Your task to perform on an android device: uninstall "Pluto TV - Live TV and Movies" Image 0: 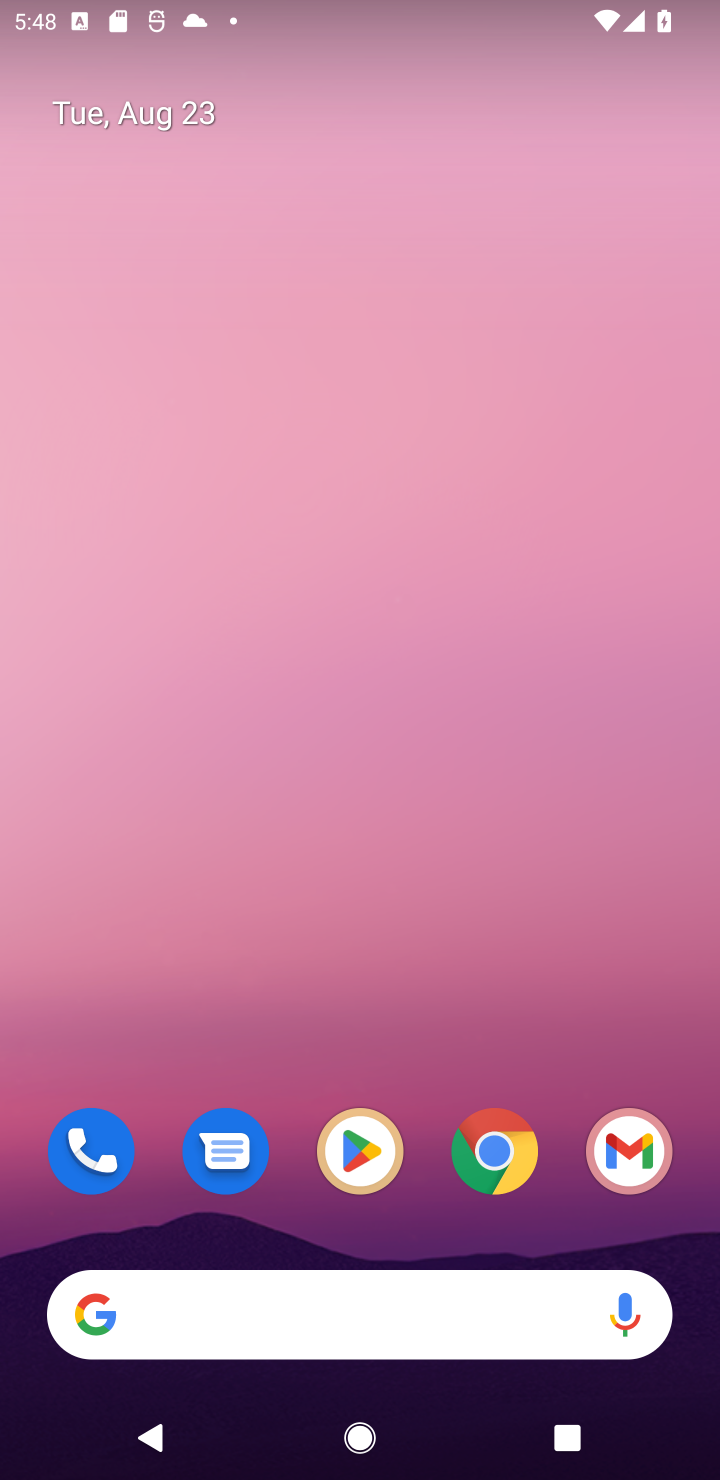
Step 0: click (365, 1139)
Your task to perform on an android device: uninstall "Pluto TV - Live TV and Movies" Image 1: 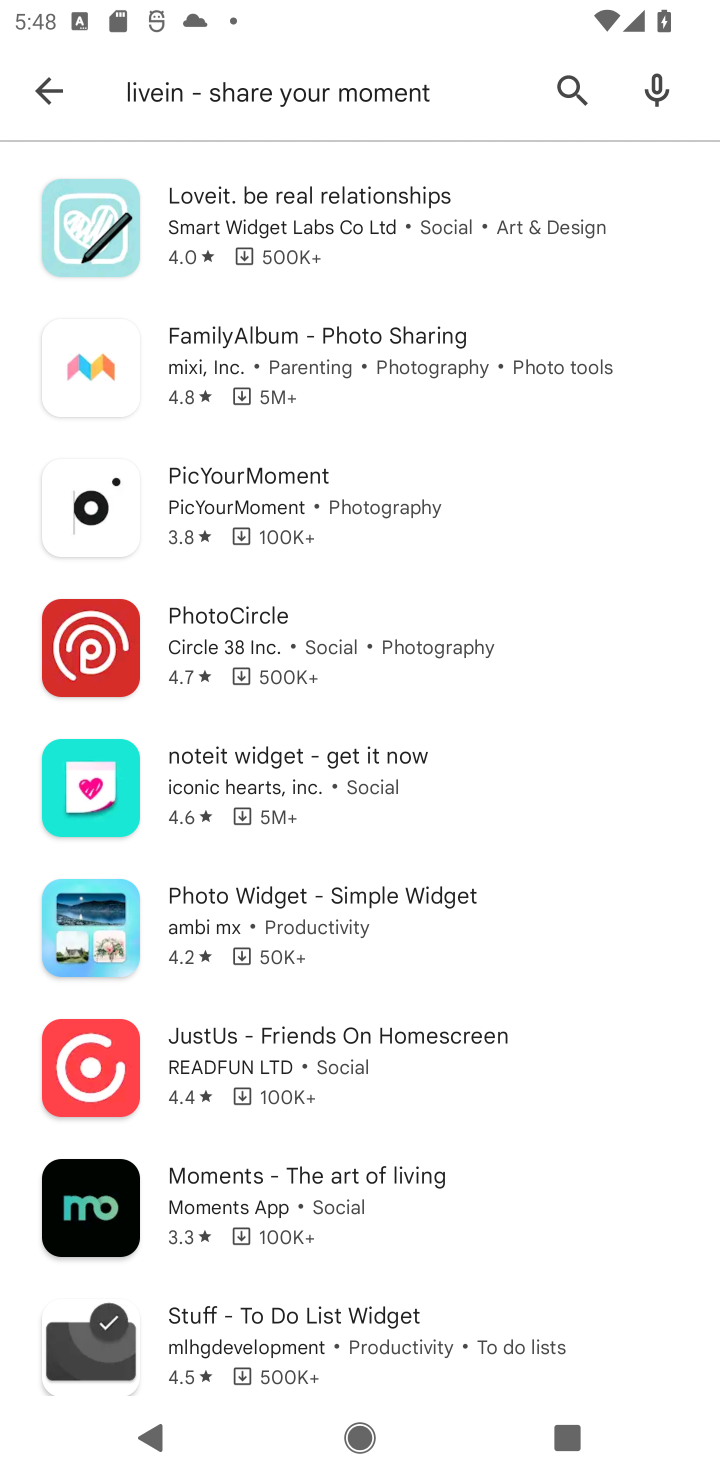
Step 1: click (558, 86)
Your task to perform on an android device: uninstall "Pluto TV - Live TV and Movies" Image 2: 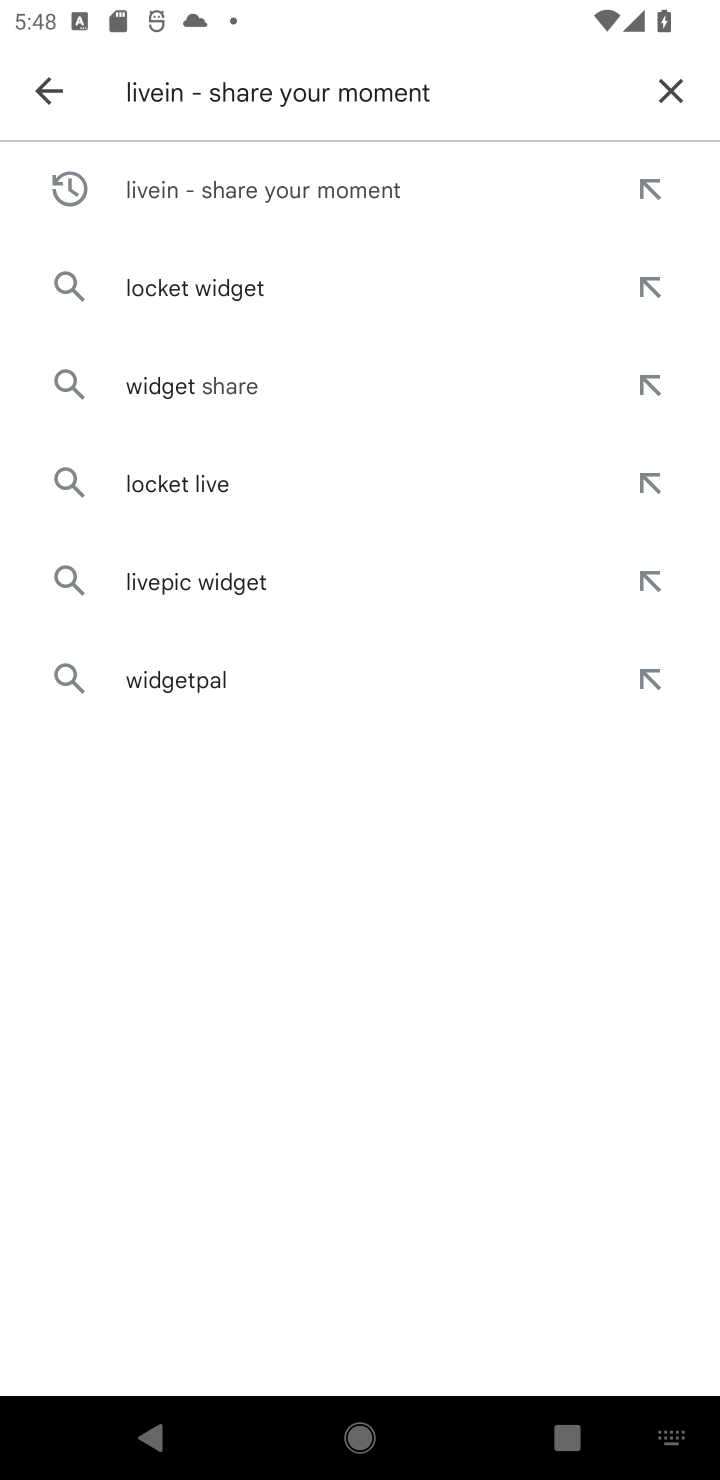
Step 2: click (667, 78)
Your task to perform on an android device: uninstall "Pluto TV - Live TV and Movies" Image 3: 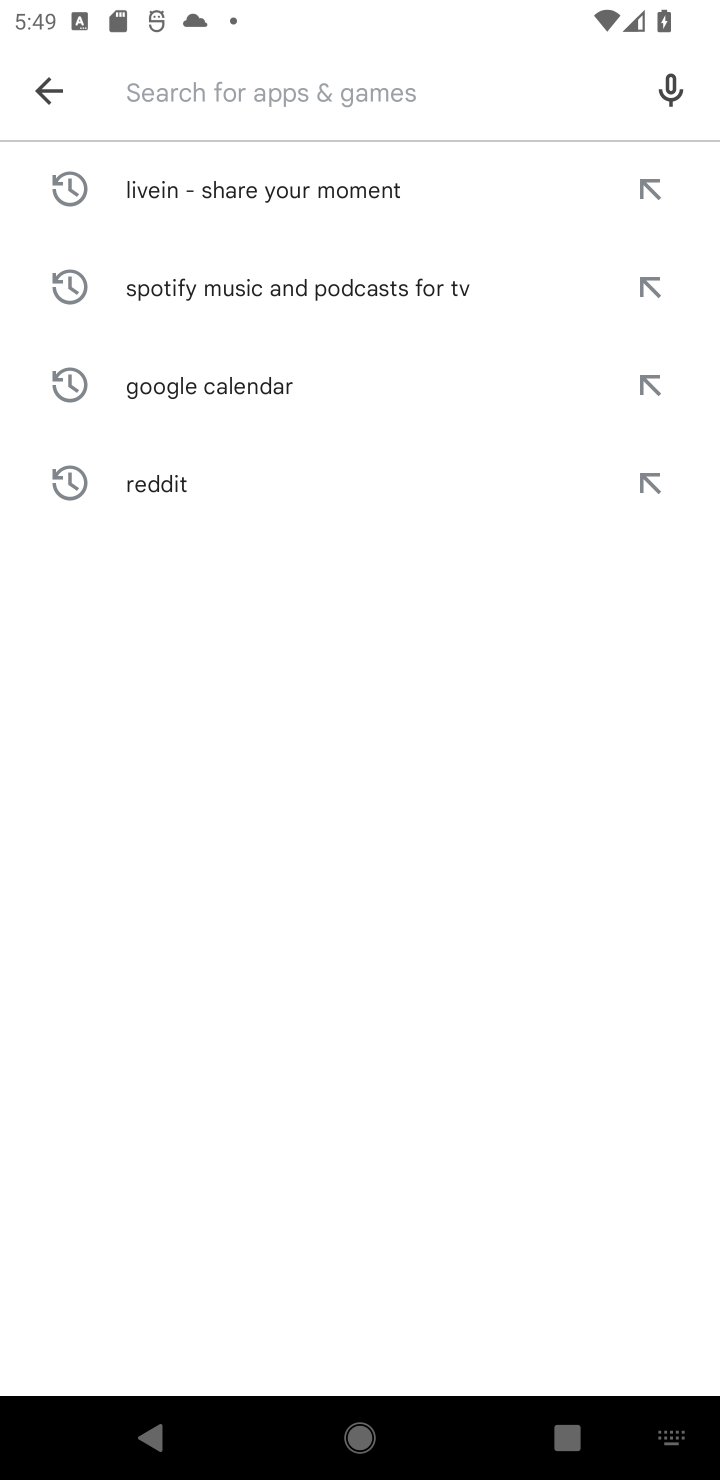
Step 3: type "Pluto TV - Live TV and Movies"
Your task to perform on an android device: uninstall "Pluto TV - Live TV and Movies" Image 4: 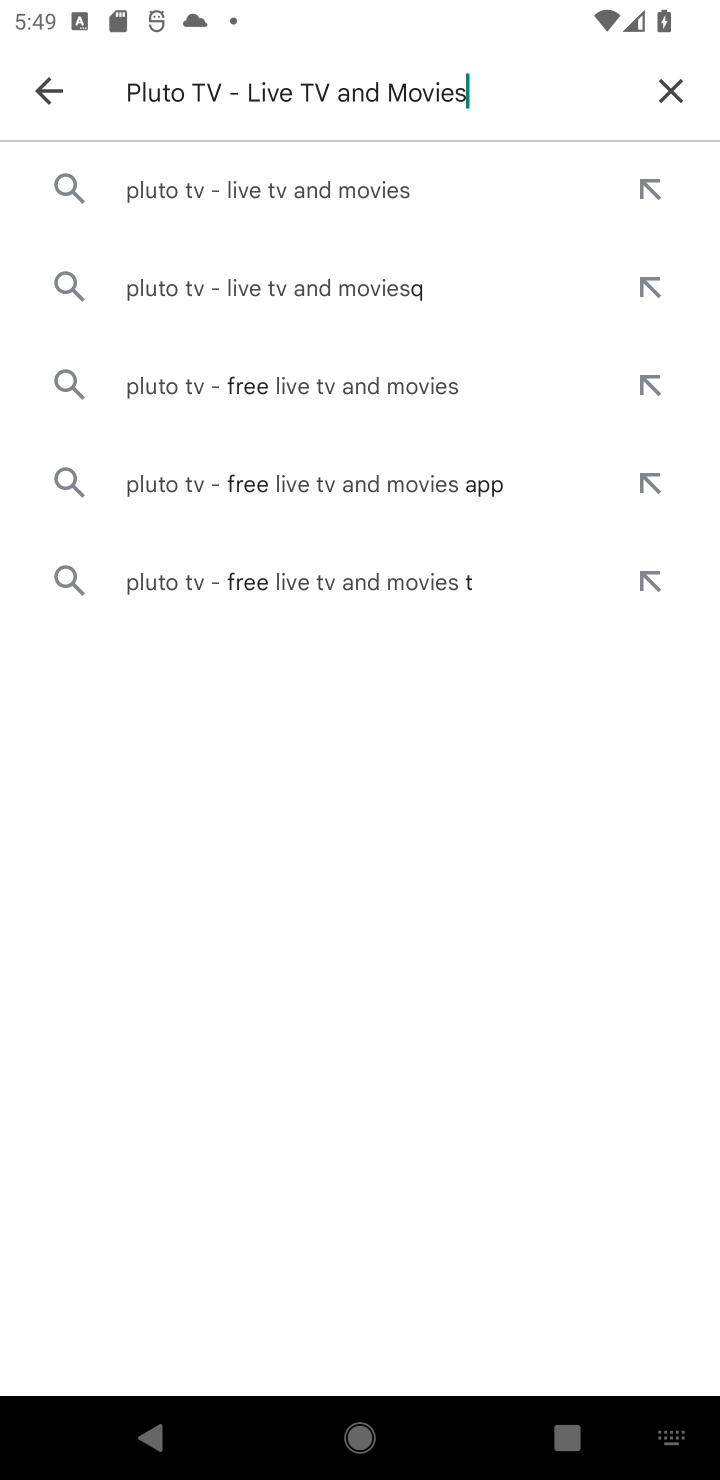
Step 4: click (278, 178)
Your task to perform on an android device: uninstall "Pluto TV - Live TV and Movies" Image 5: 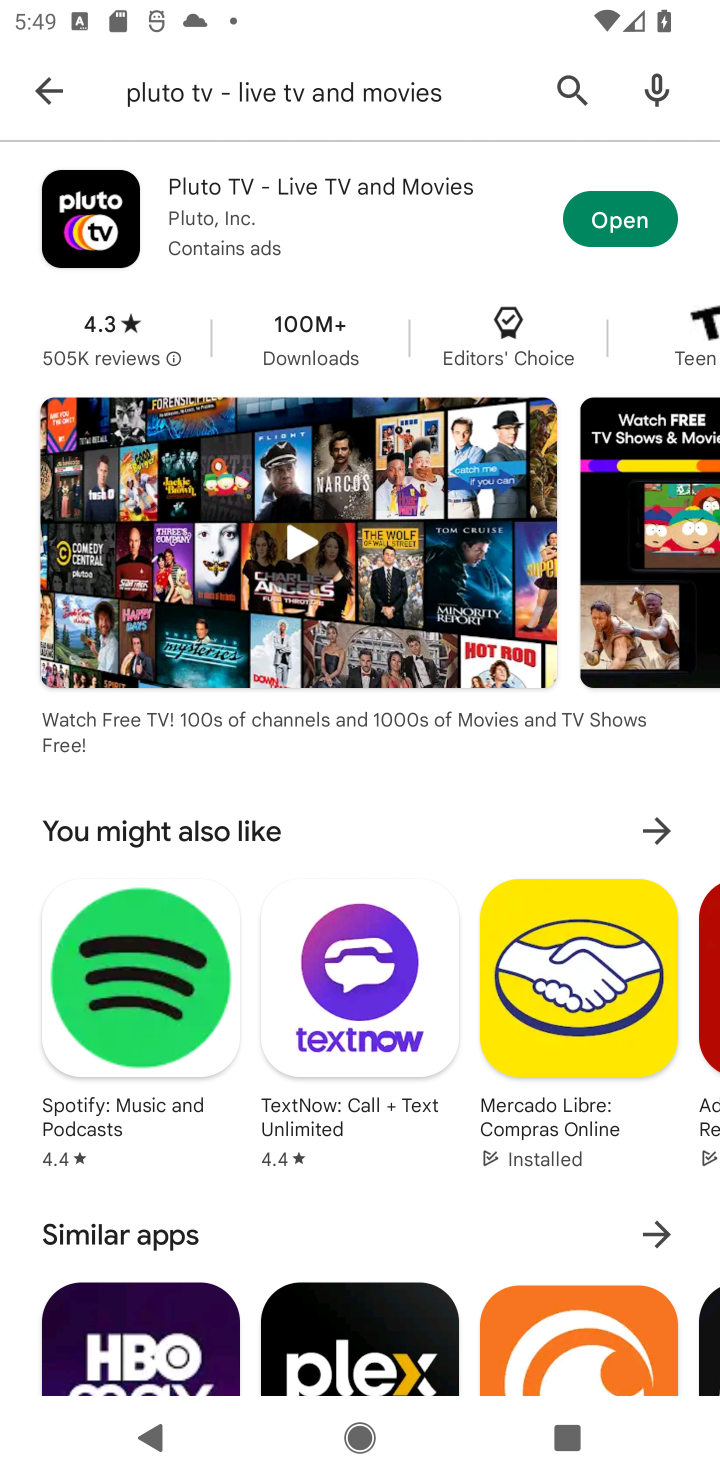
Step 5: click (278, 179)
Your task to perform on an android device: uninstall "Pluto TV - Live TV and Movies" Image 6: 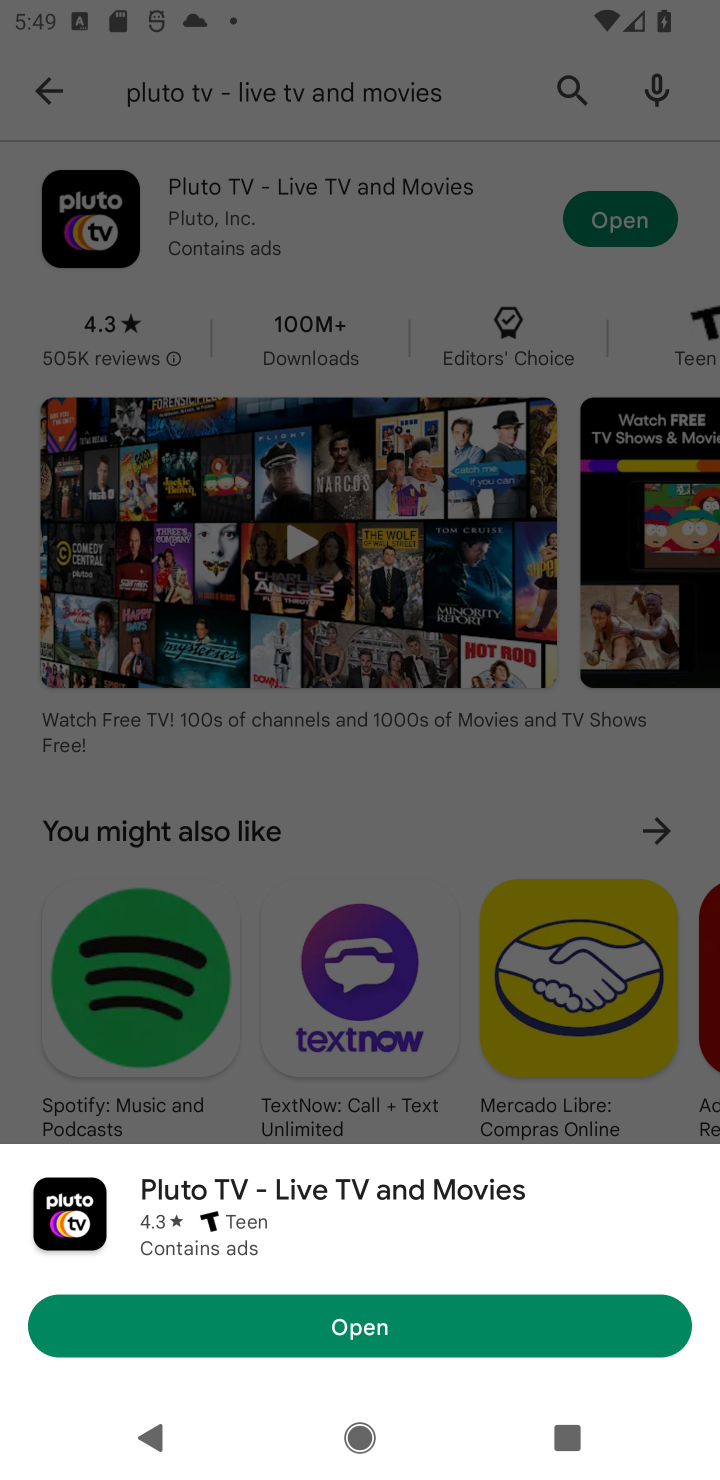
Step 6: click (124, 201)
Your task to perform on an android device: uninstall "Pluto TV - Live TV and Movies" Image 7: 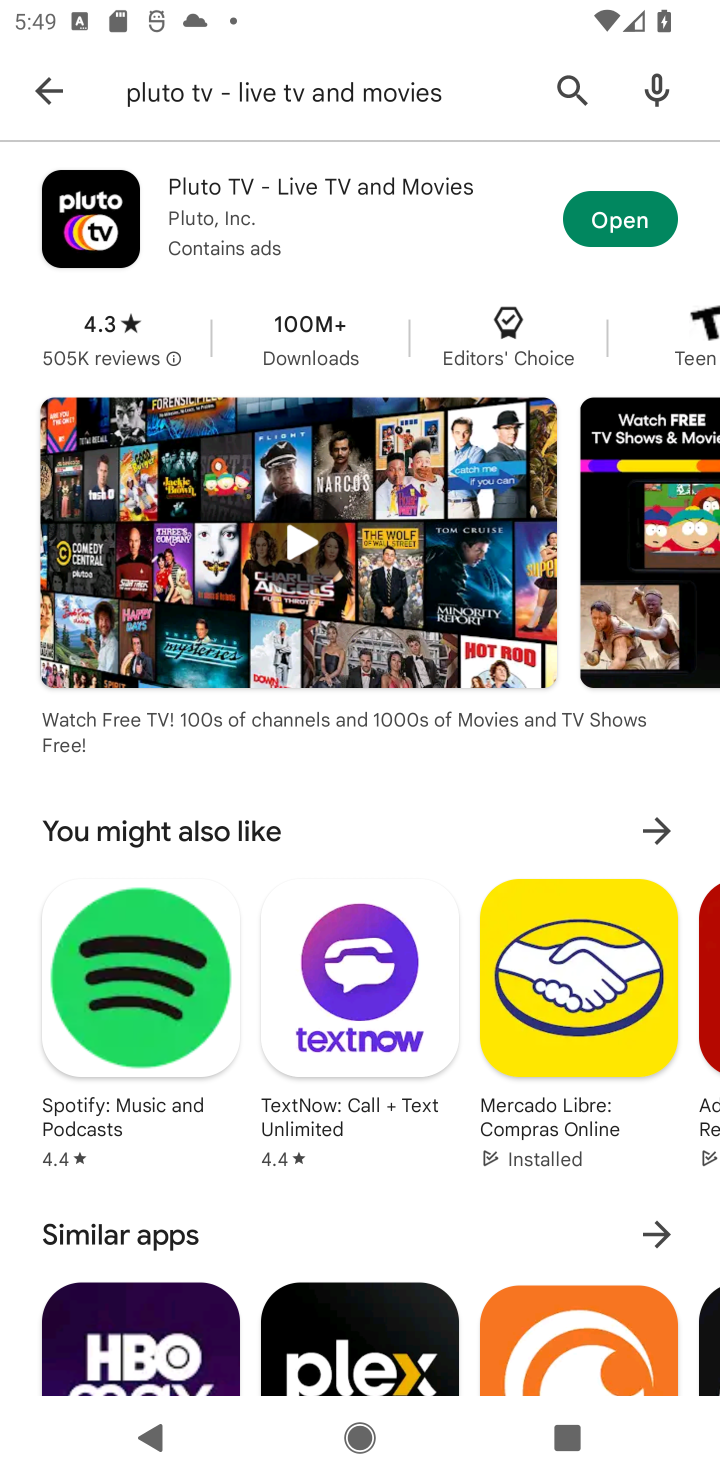
Step 7: click (182, 180)
Your task to perform on an android device: uninstall "Pluto TV - Live TV and Movies" Image 8: 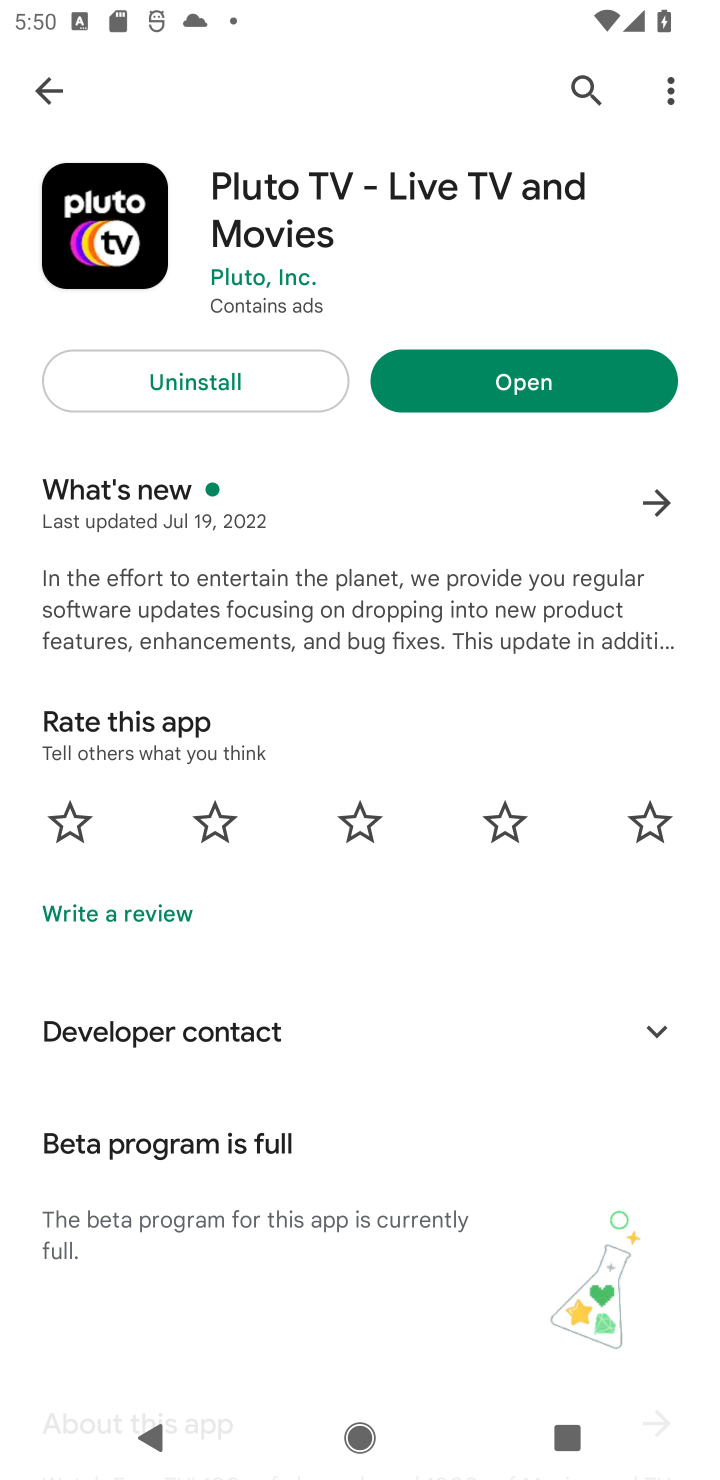
Step 8: click (231, 370)
Your task to perform on an android device: uninstall "Pluto TV - Live TV and Movies" Image 9: 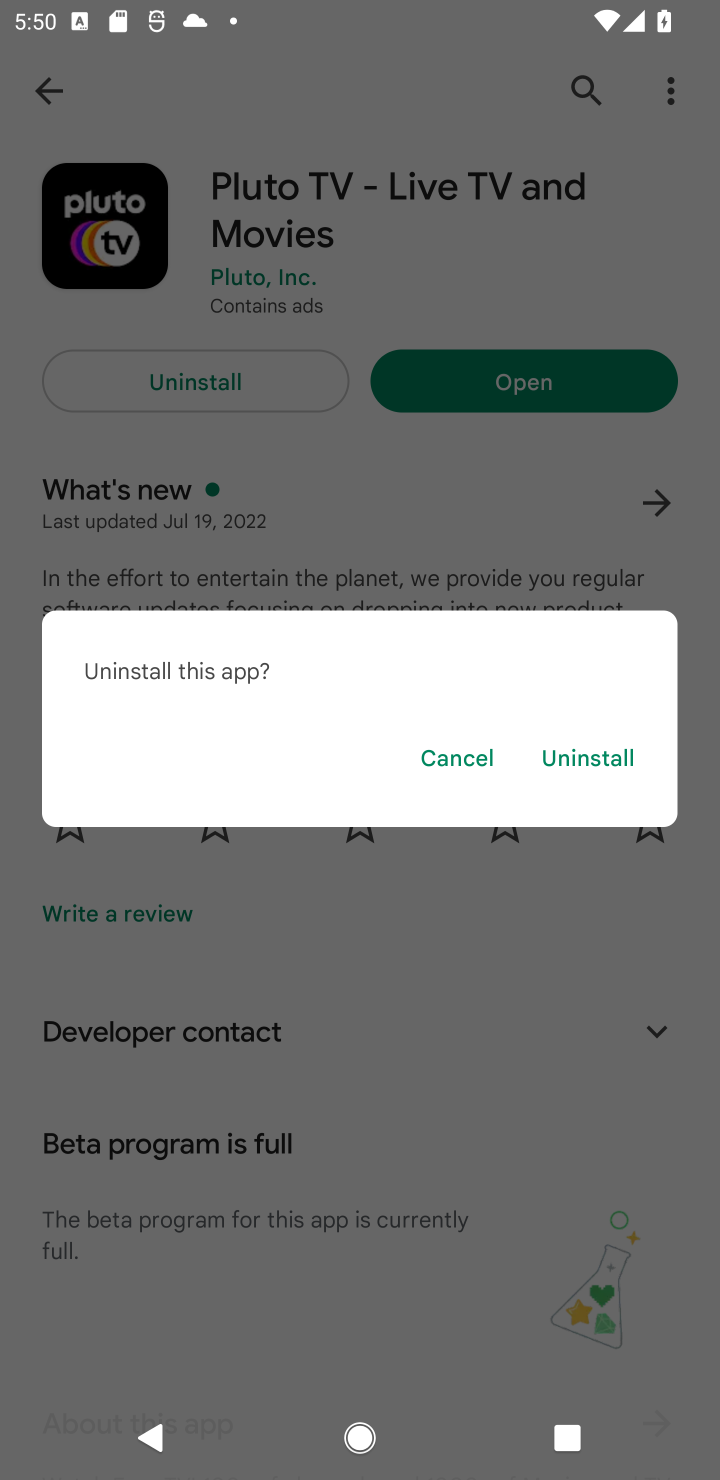
Step 9: click (634, 767)
Your task to perform on an android device: uninstall "Pluto TV - Live TV and Movies" Image 10: 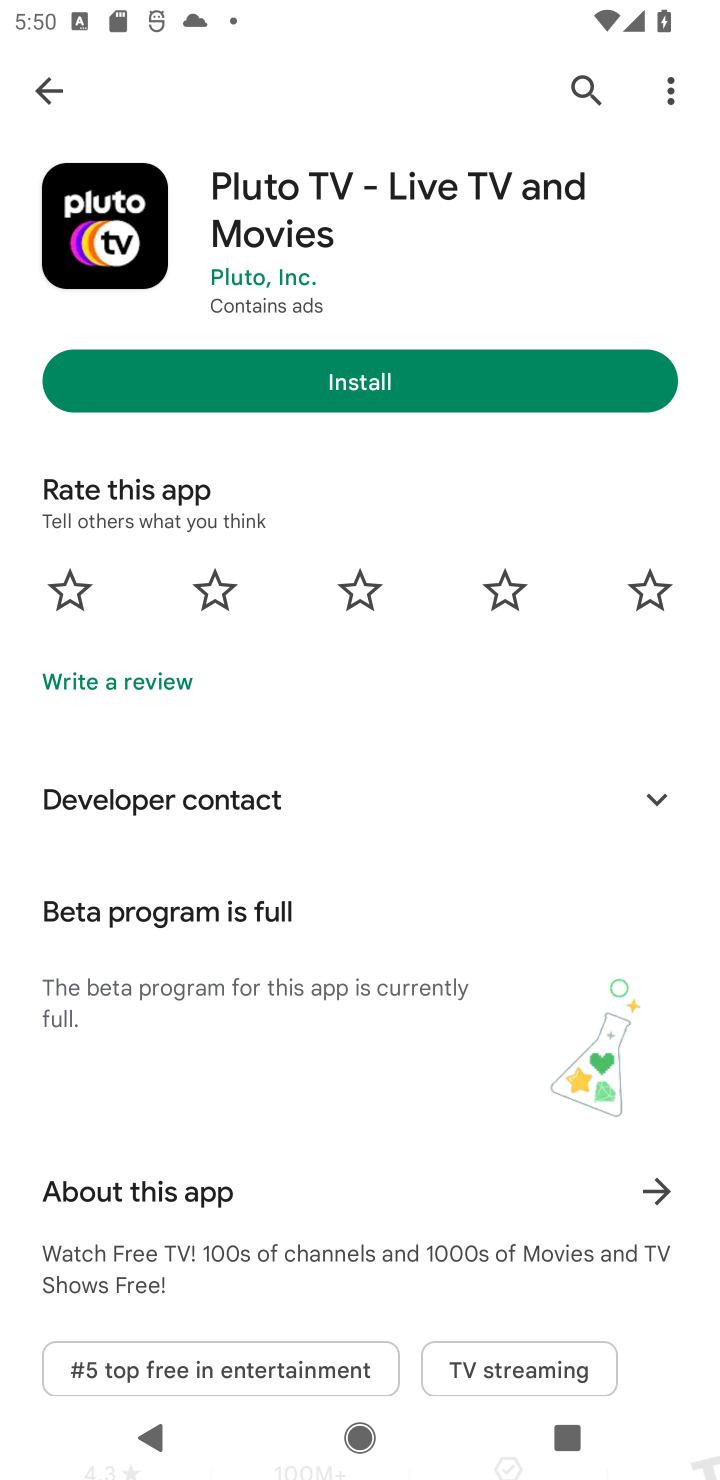
Step 10: task complete